Your task to perform on an android device: Go to accessibility settings Image 0: 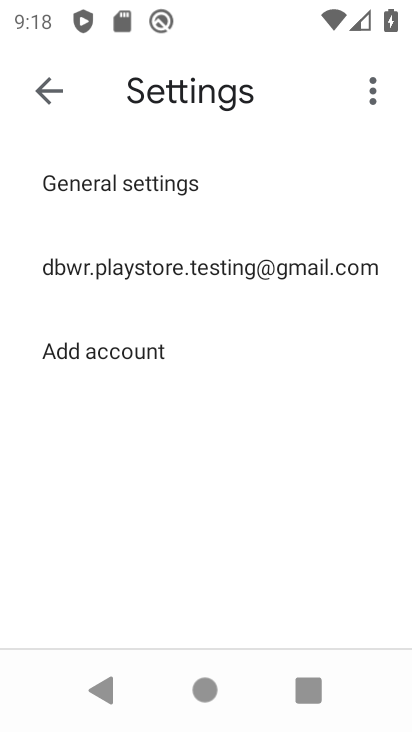
Step 0: press home button
Your task to perform on an android device: Go to accessibility settings Image 1: 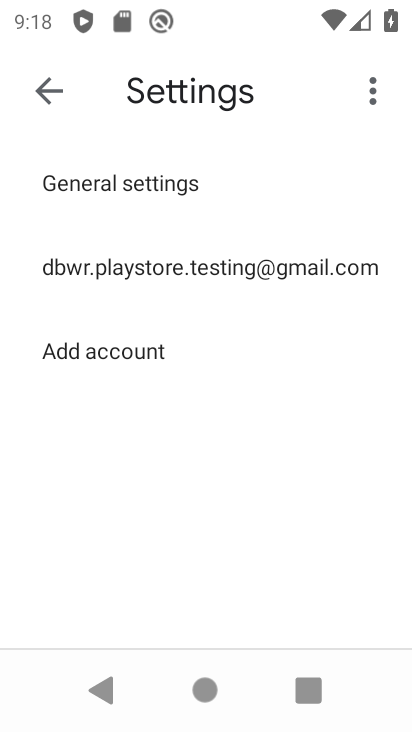
Step 1: press home button
Your task to perform on an android device: Go to accessibility settings Image 2: 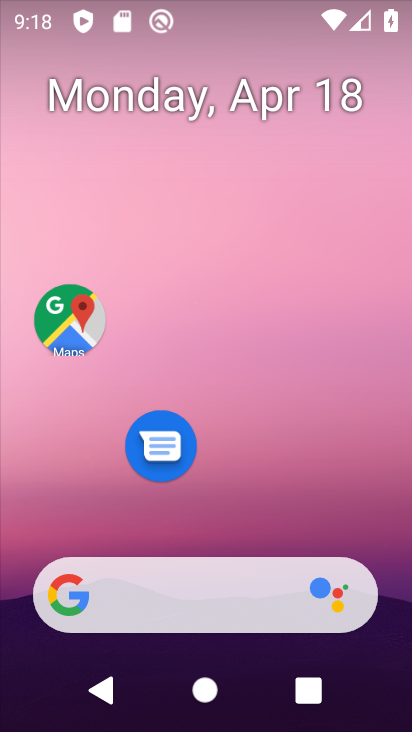
Step 2: drag from (218, 526) to (218, 13)
Your task to perform on an android device: Go to accessibility settings Image 3: 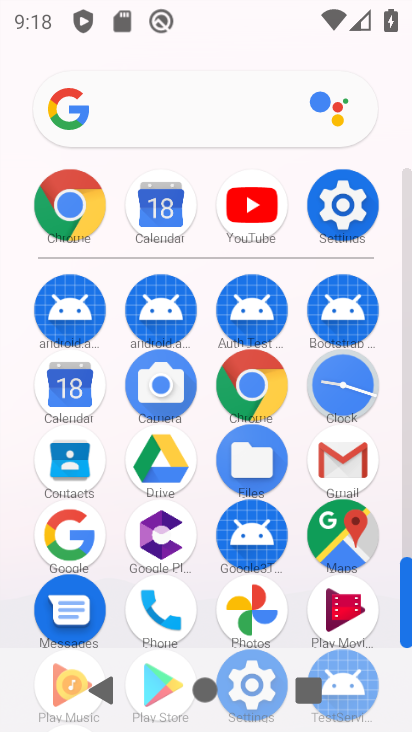
Step 3: click (346, 201)
Your task to perform on an android device: Go to accessibility settings Image 4: 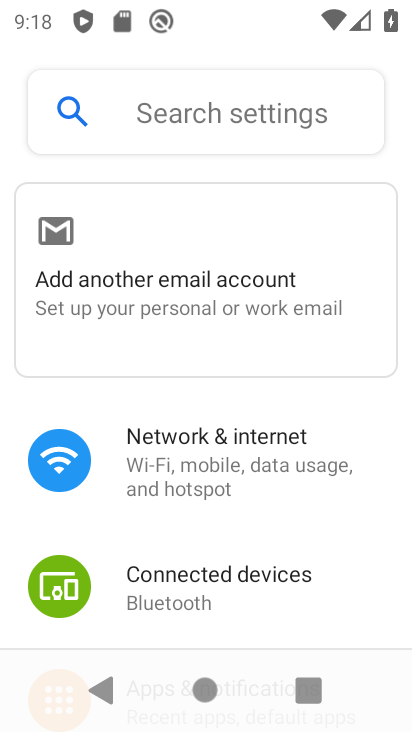
Step 4: drag from (218, 611) to (287, 110)
Your task to perform on an android device: Go to accessibility settings Image 5: 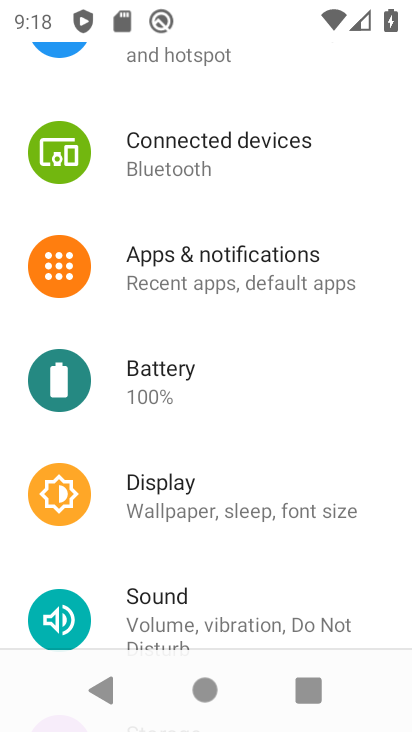
Step 5: drag from (214, 605) to (234, 69)
Your task to perform on an android device: Go to accessibility settings Image 6: 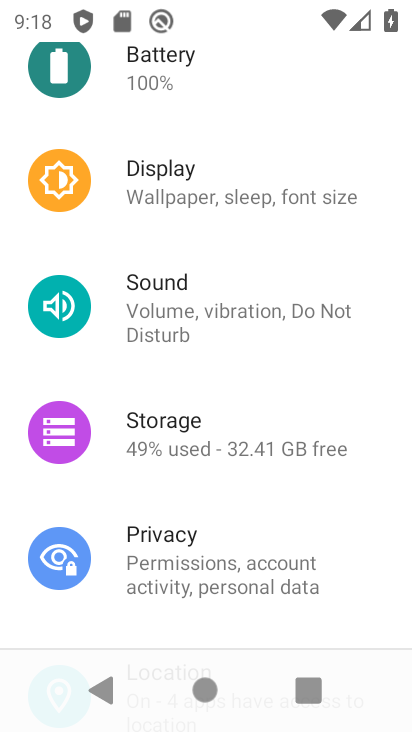
Step 6: drag from (189, 614) to (245, 36)
Your task to perform on an android device: Go to accessibility settings Image 7: 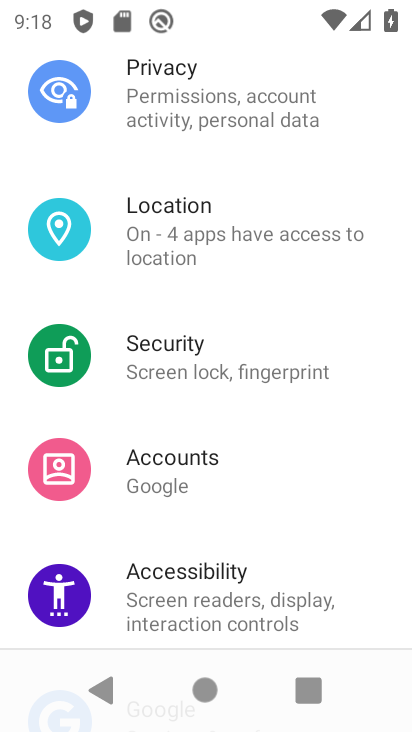
Step 7: click (214, 598)
Your task to perform on an android device: Go to accessibility settings Image 8: 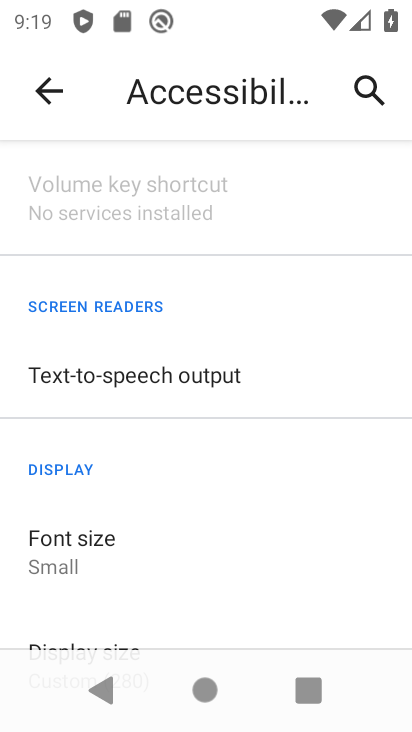
Step 8: task complete